Your task to perform on an android device: empty trash in the gmail app Image 0: 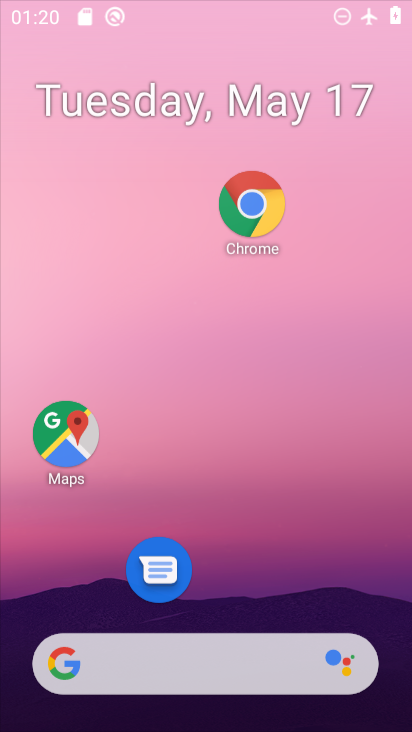
Step 0: click (199, 92)
Your task to perform on an android device: empty trash in the gmail app Image 1: 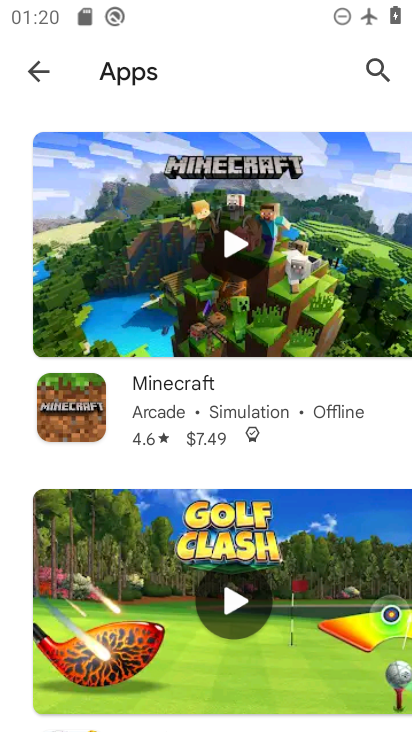
Step 1: press home button
Your task to perform on an android device: empty trash in the gmail app Image 2: 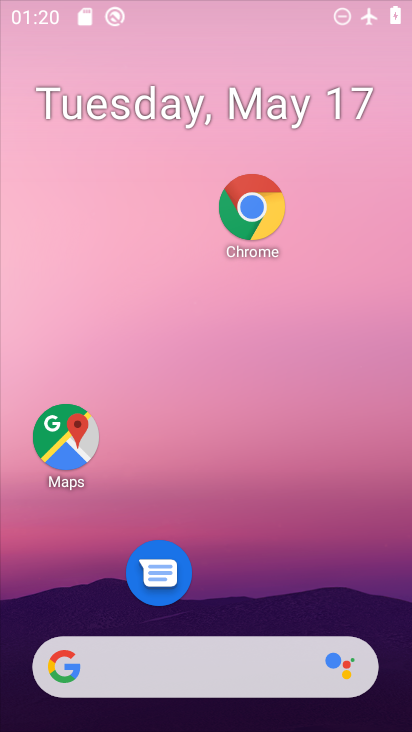
Step 2: drag from (282, 615) to (369, 616)
Your task to perform on an android device: empty trash in the gmail app Image 3: 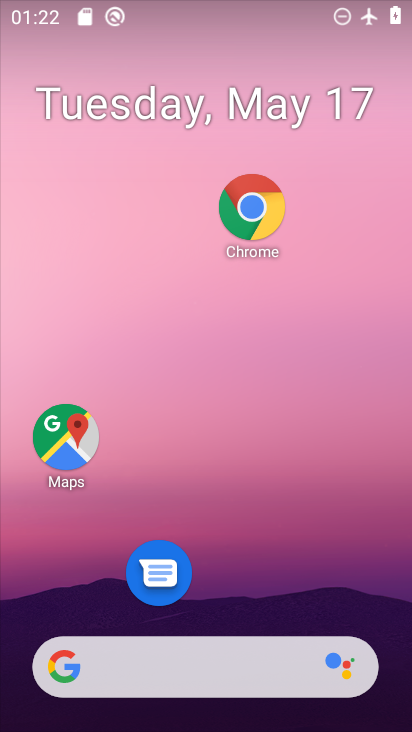
Step 3: drag from (299, 680) to (249, 0)
Your task to perform on an android device: empty trash in the gmail app Image 4: 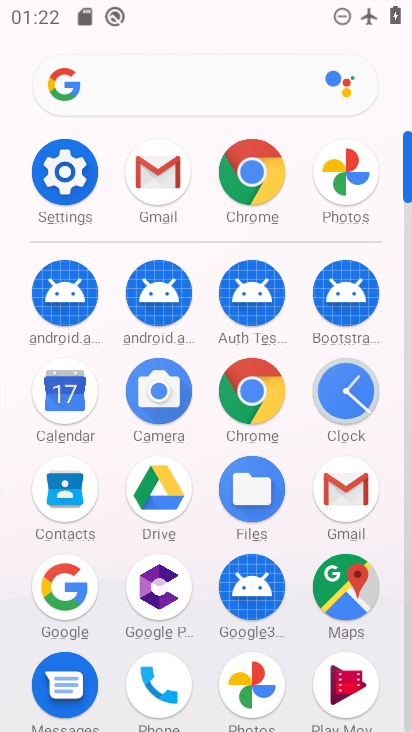
Step 4: click (332, 474)
Your task to perform on an android device: empty trash in the gmail app Image 5: 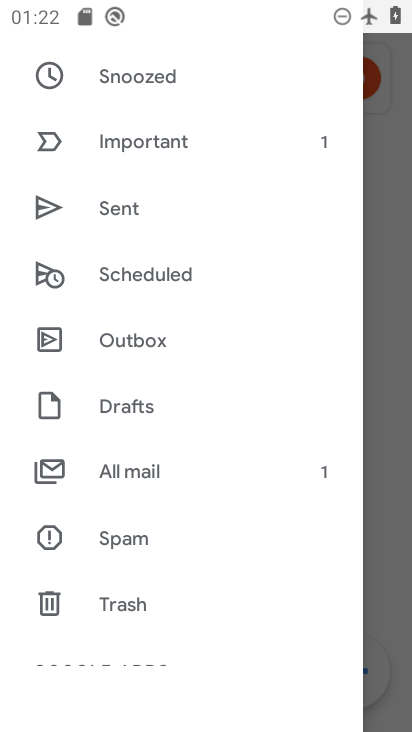
Step 5: click (166, 605)
Your task to perform on an android device: empty trash in the gmail app Image 6: 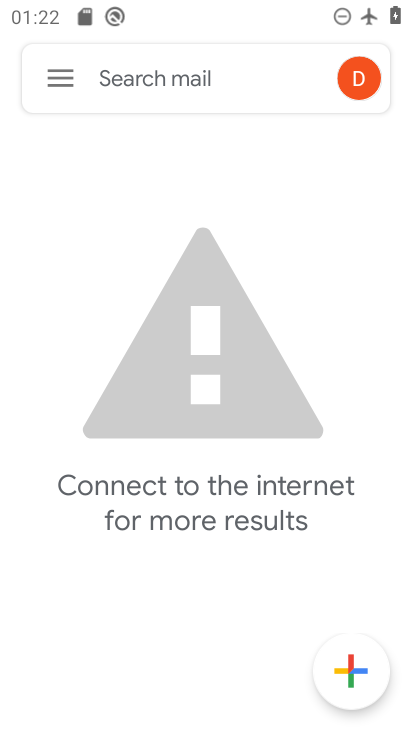
Step 6: task complete